Your task to perform on an android device: Open notification settings Image 0: 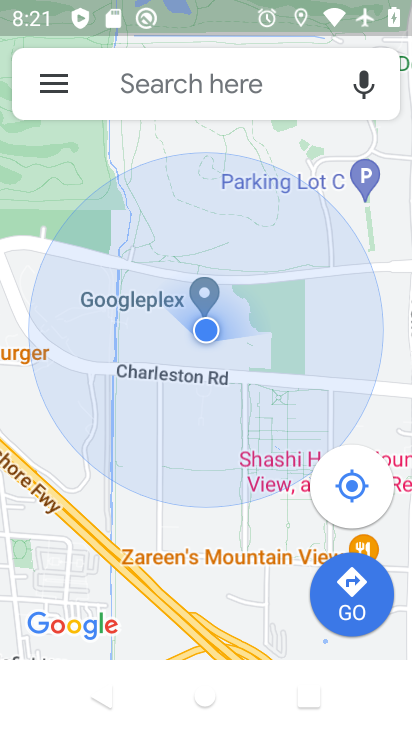
Step 0: press back button
Your task to perform on an android device: Open notification settings Image 1: 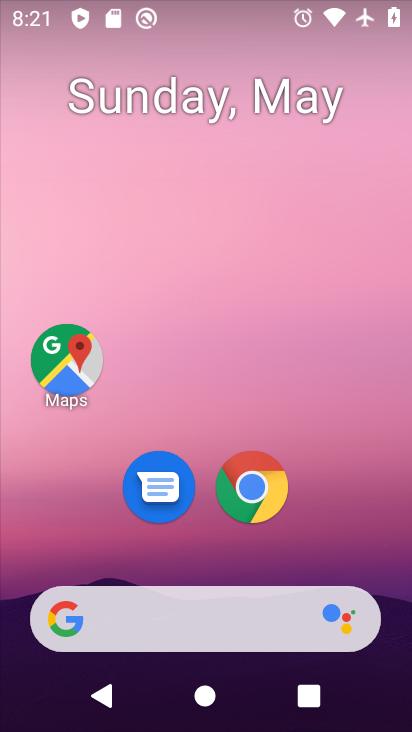
Step 1: drag from (194, 577) to (278, 31)
Your task to perform on an android device: Open notification settings Image 2: 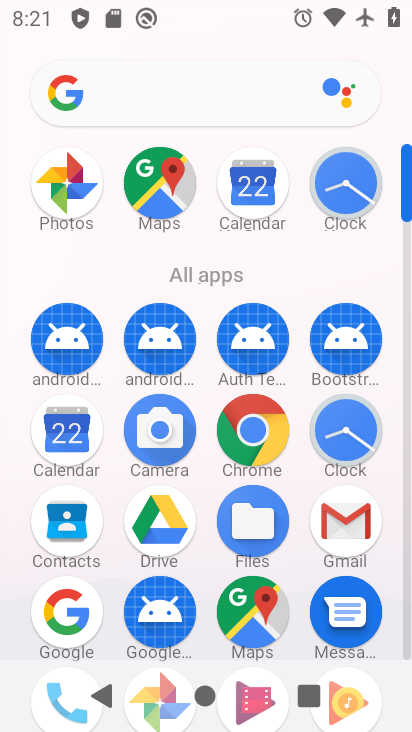
Step 2: drag from (215, 513) to (318, 43)
Your task to perform on an android device: Open notification settings Image 3: 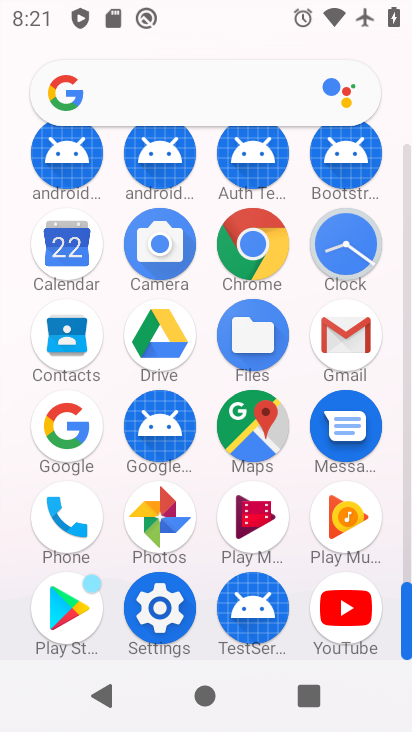
Step 3: click (170, 594)
Your task to perform on an android device: Open notification settings Image 4: 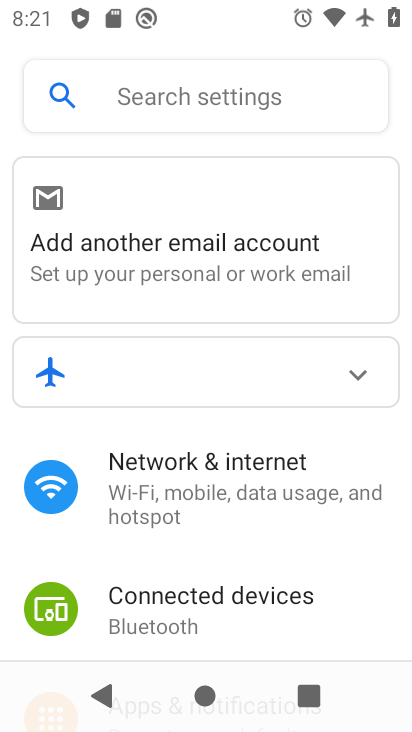
Step 4: drag from (193, 587) to (311, 110)
Your task to perform on an android device: Open notification settings Image 5: 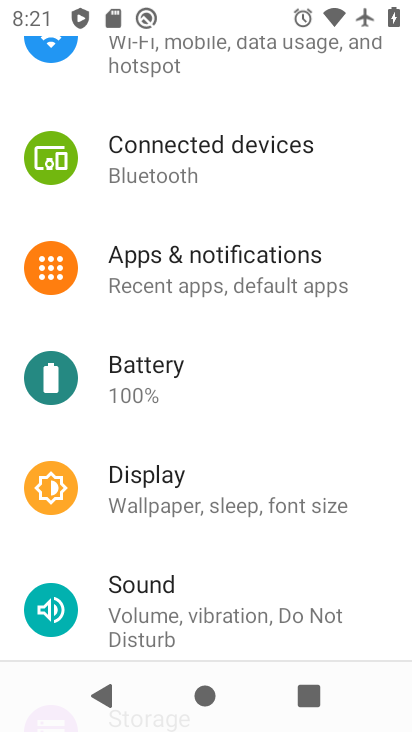
Step 5: click (242, 382)
Your task to perform on an android device: Open notification settings Image 6: 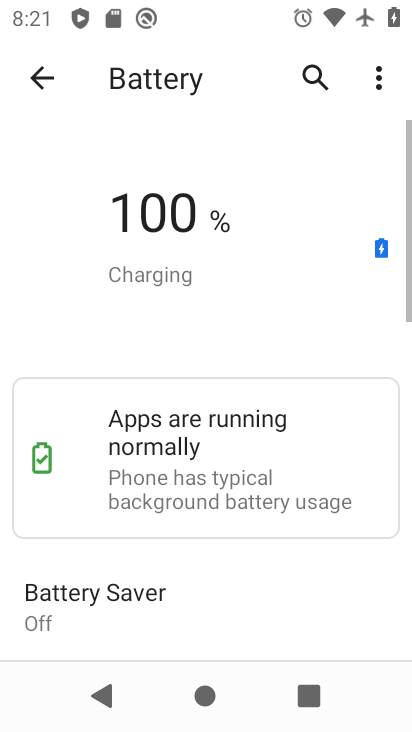
Step 6: click (36, 70)
Your task to perform on an android device: Open notification settings Image 7: 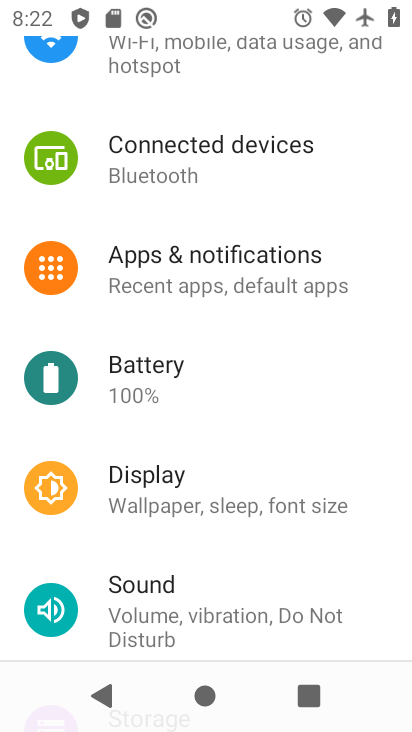
Step 7: click (241, 276)
Your task to perform on an android device: Open notification settings Image 8: 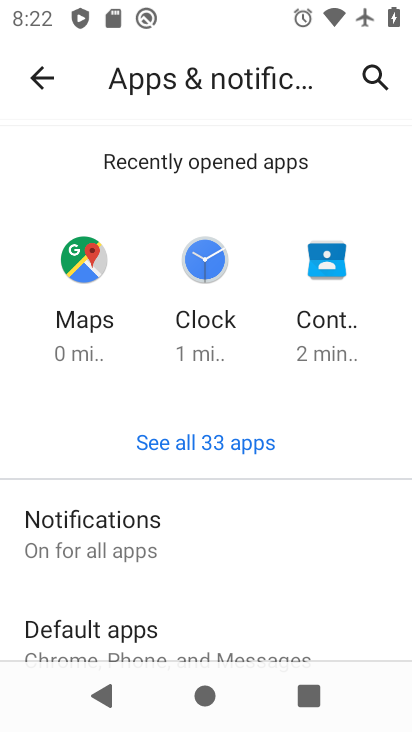
Step 8: task complete